Your task to perform on an android device: Open Wikipedia Image 0: 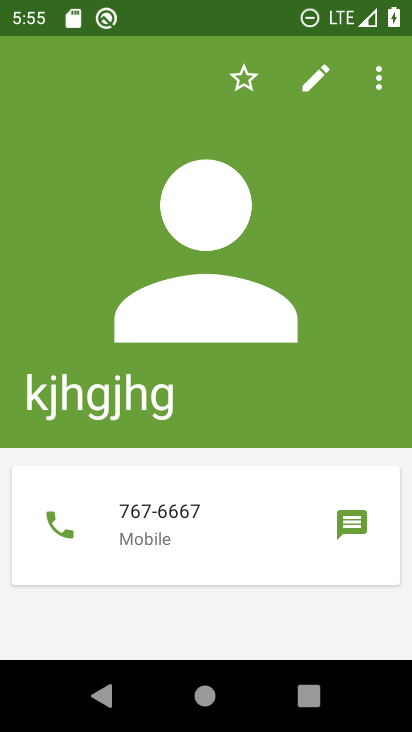
Step 0: press home button
Your task to perform on an android device: Open Wikipedia Image 1: 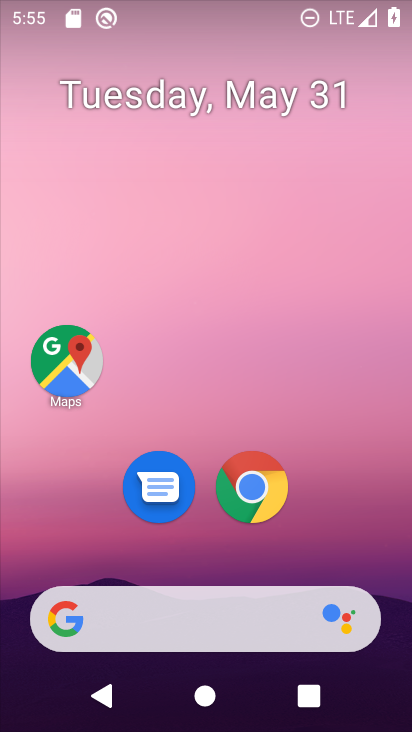
Step 1: click (246, 481)
Your task to perform on an android device: Open Wikipedia Image 2: 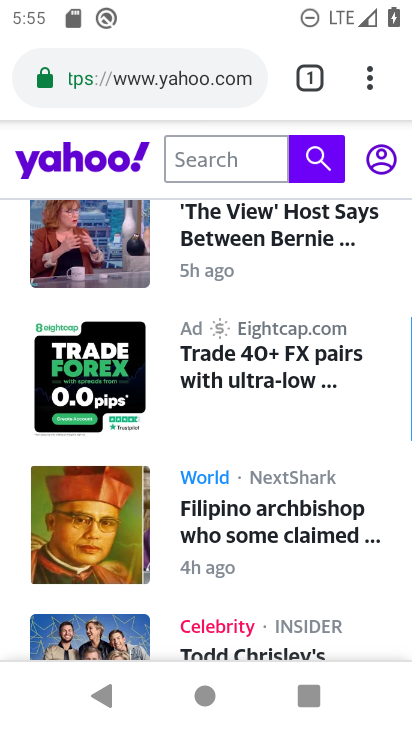
Step 2: click (370, 75)
Your task to perform on an android device: Open Wikipedia Image 3: 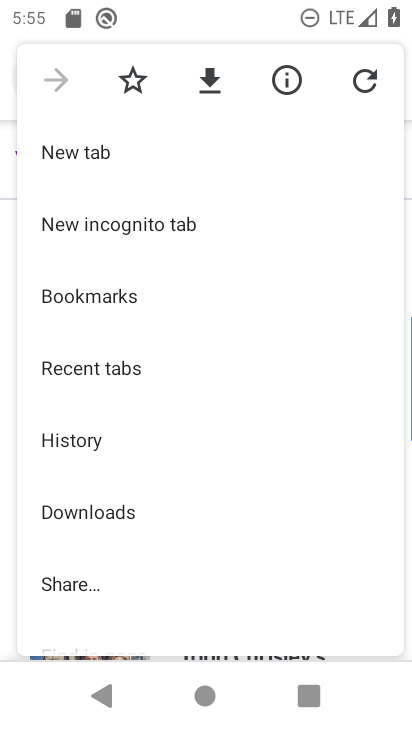
Step 3: click (74, 140)
Your task to perform on an android device: Open Wikipedia Image 4: 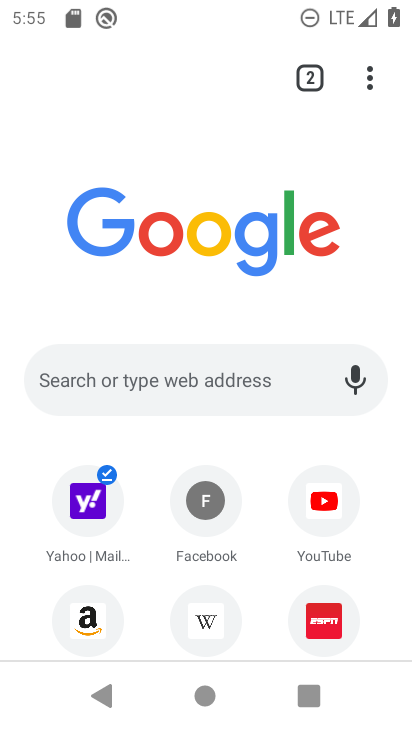
Step 4: click (196, 636)
Your task to perform on an android device: Open Wikipedia Image 5: 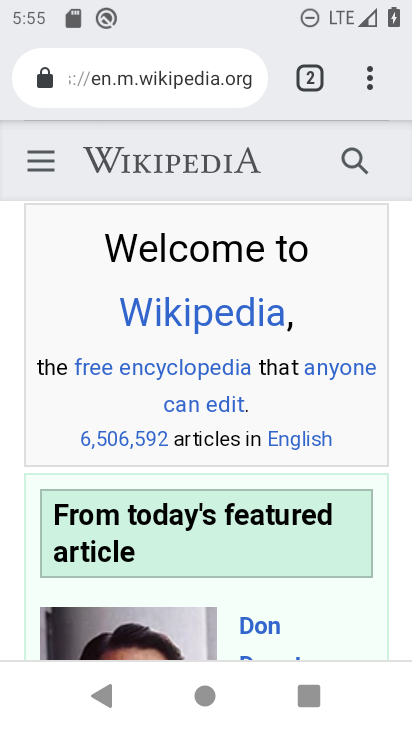
Step 5: task complete